Your task to perform on an android device: Show me recent news Image 0: 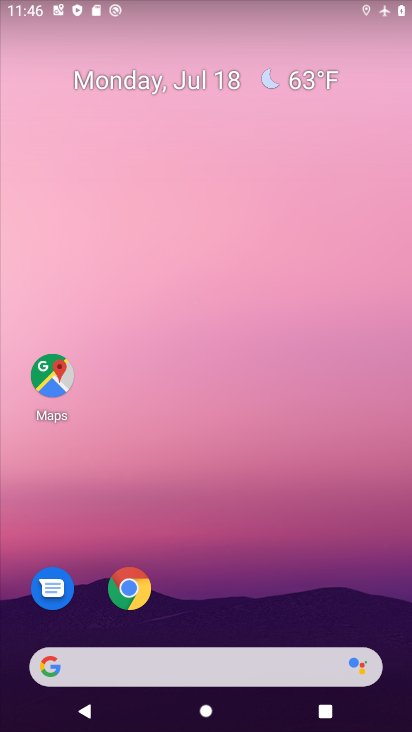
Step 0: drag from (202, 579) to (322, 15)
Your task to perform on an android device: Show me recent news Image 1: 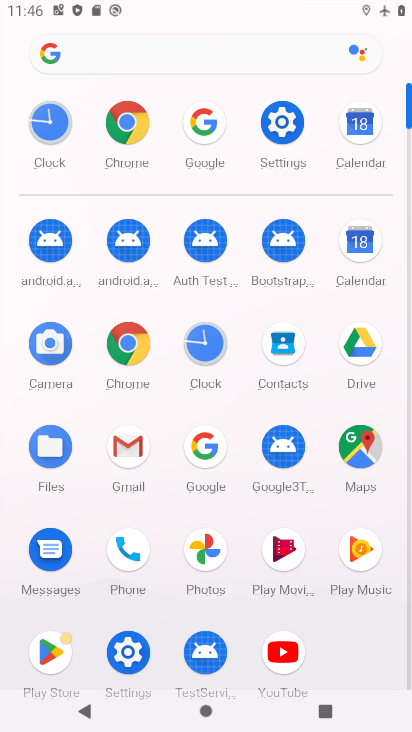
Step 1: click (124, 366)
Your task to perform on an android device: Show me recent news Image 2: 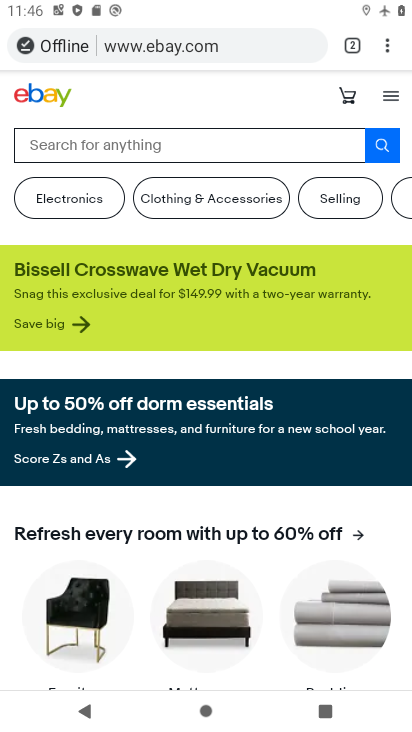
Step 2: task complete